Your task to perform on an android device: open a bookmark in the chrome app Image 0: 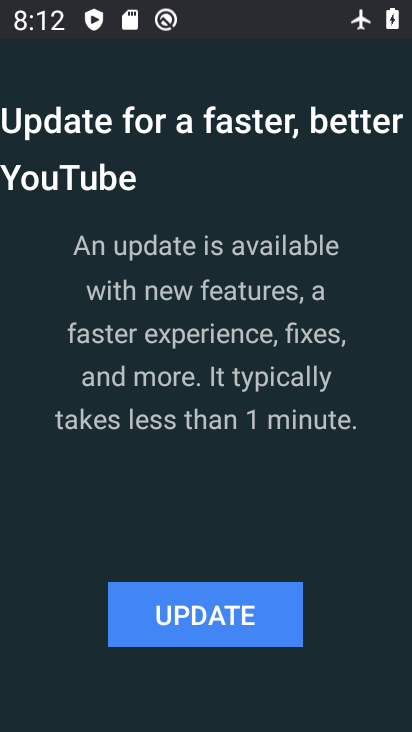
Step 0: press back button
Your task to perform on an android device: open a bookmark in the chrome app Image 1: 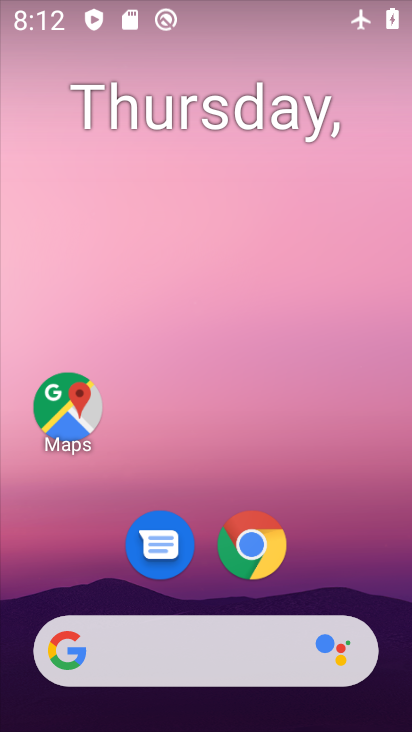
Step 1: click (255, 537)
Your task to perform on an android device: open a bookmark in the chrome app Image 2: 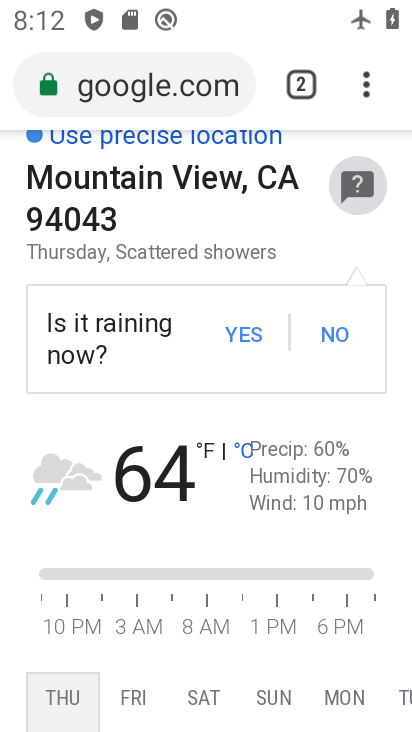
Step 2: click (360, 90)
Your task to perform on an android device: open a bookmark in the chrome app Image 3: 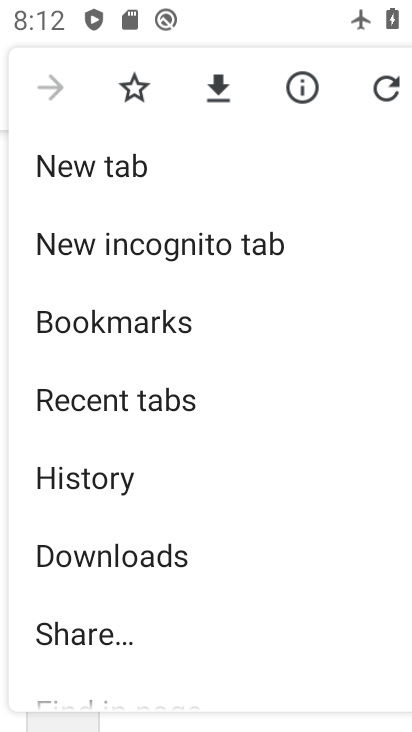
Step 3: click (166, 318)
Your task to perform on an android device: open a bookmark in the chrome app Image 4: 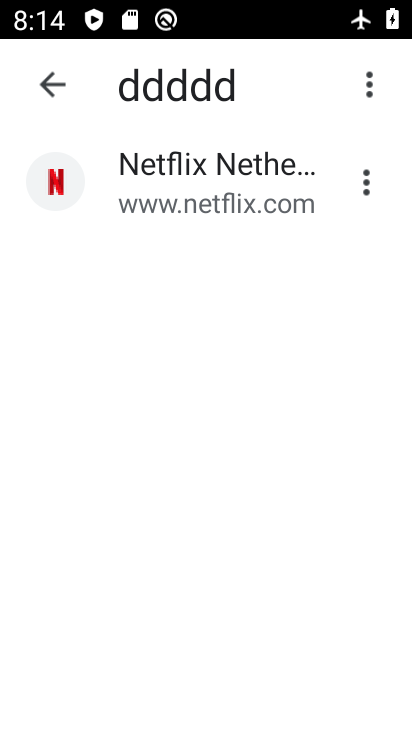
Step 4: click (57, 93)
Your task to perform on an android device: open a bookmark in the chrome app Image 5: 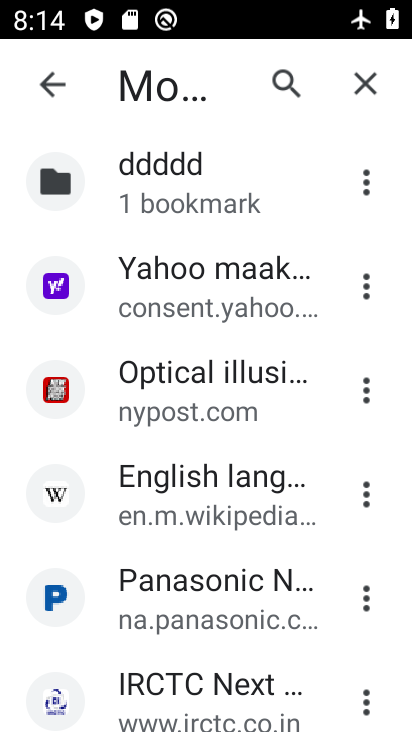
Step 5: task complete